Your task to perform on an android device: change notifications settings Image 0: 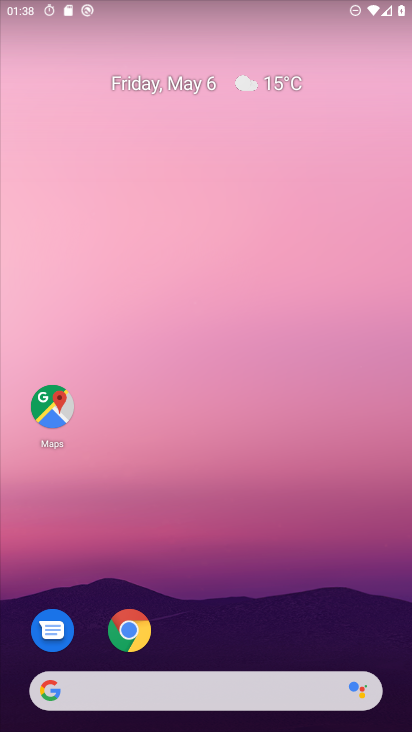
Step 0: drag from (296, 630) to (242, 93)
Your task to perform on an android device: change notifications settings Image 1: 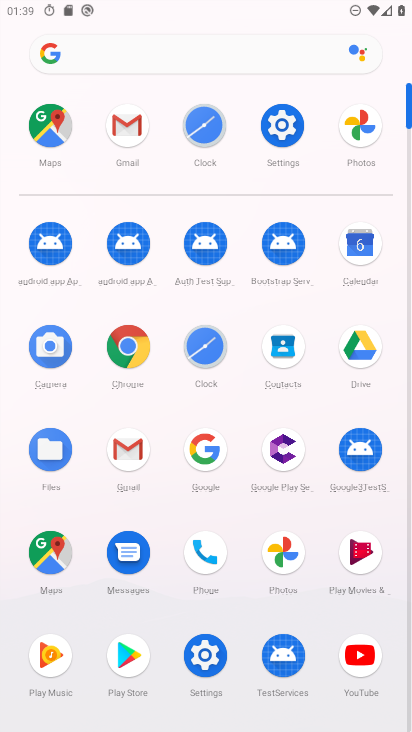
Step 1: click (289, 119)
Your task to perform on an android device: change notifications settings Image 2: 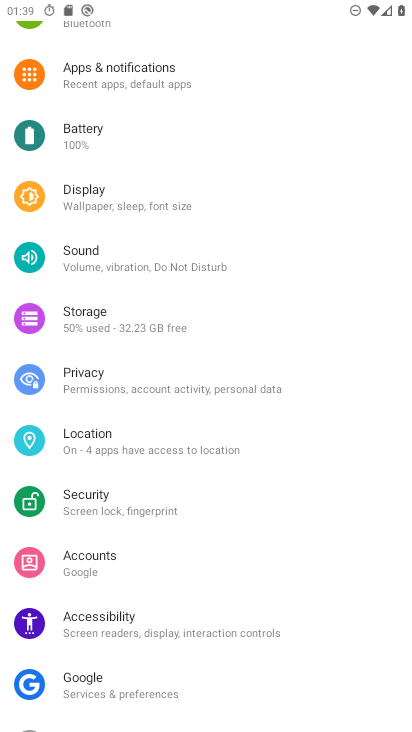
Step 2: click (152, 76)
Your task to perform on an android device: change notifications settings Image 3: 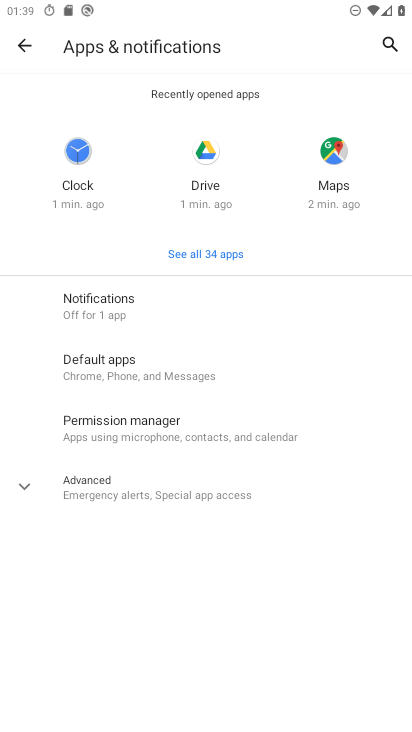
Step 3: click (105, 307)
Your task to perform on an android device: change notifications settings Image 4: 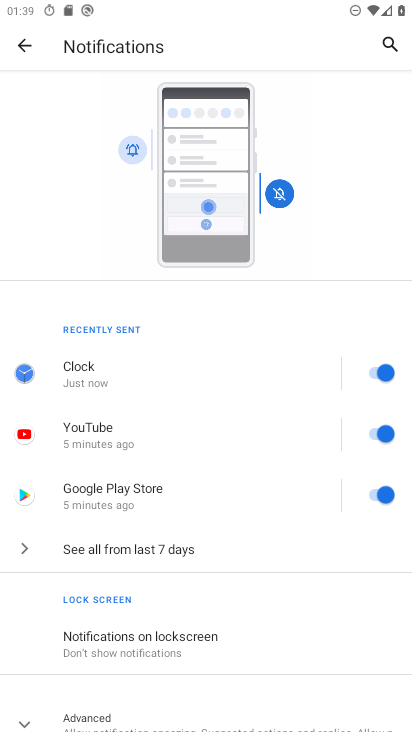
Step 4: task complete